Your task to perform on an android device: turn on location history Image 0: 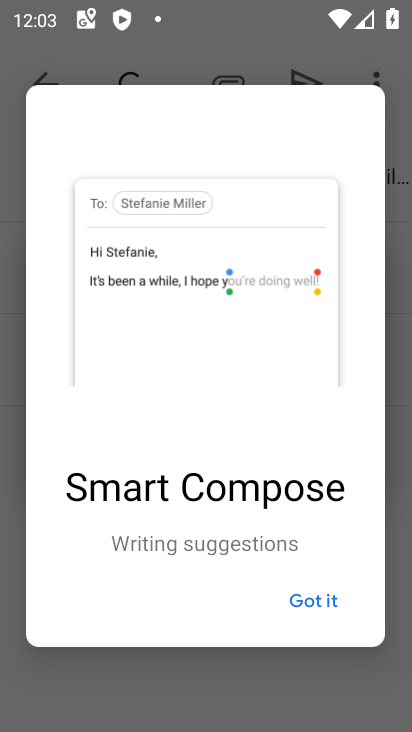
Step 0: click (318, 605)
Your task to perform on an android device: turn on location history Image 1: 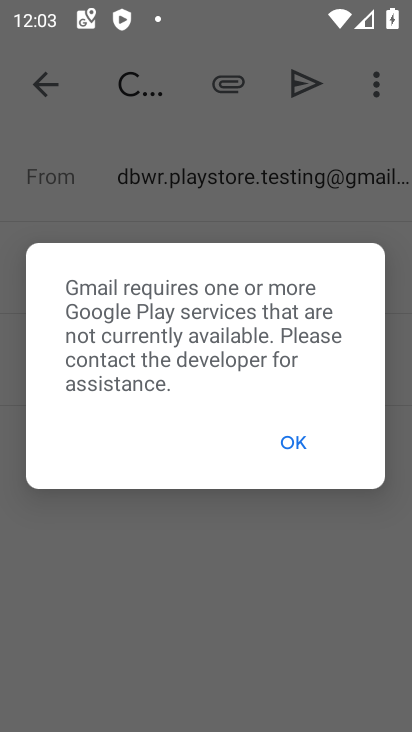
Step 1: press home button
Your task to perform on an android device: turn on location history Image 2: 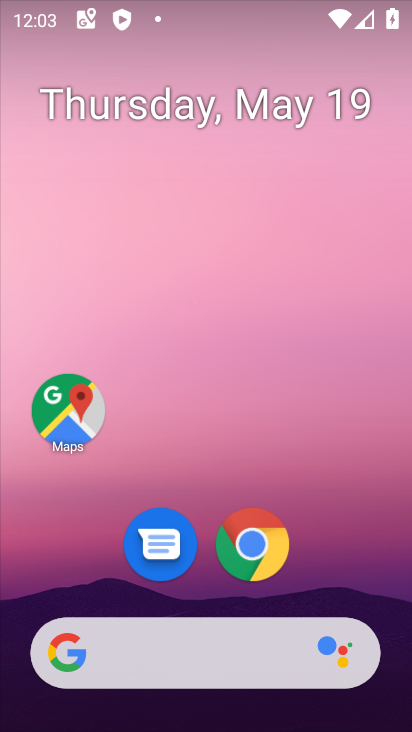
Step 2: drag from (276, 700) to (156, 195)
Your task to perform on an android device: turn on location history Image 3: 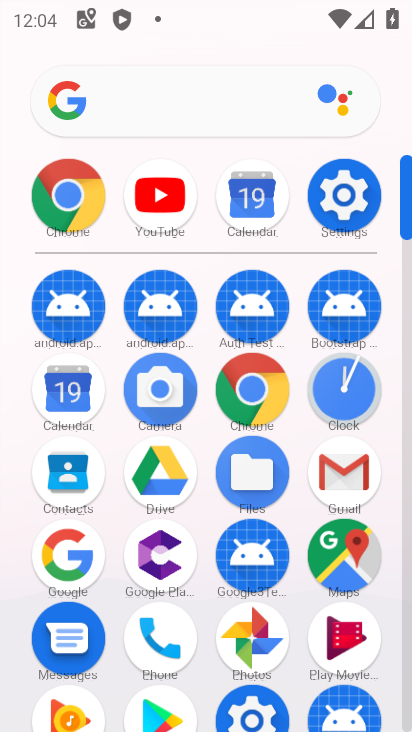
Step 3: click (352, 205)
Your task to perform on an android device: turn on location history Image 4: 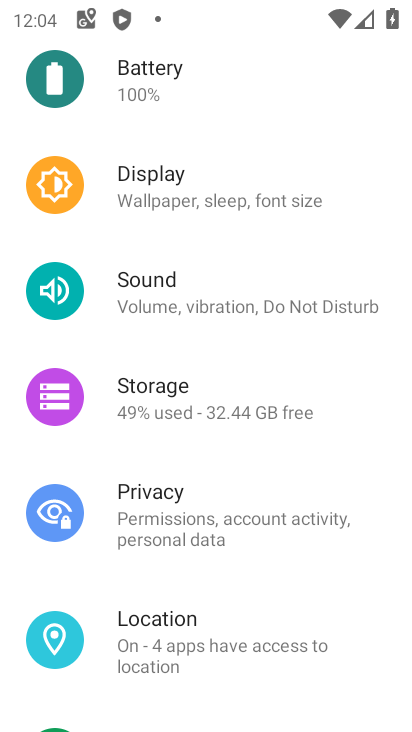
Step 4: click (190, 640)
Your task to perform on an android device: turn on location history Image 5: 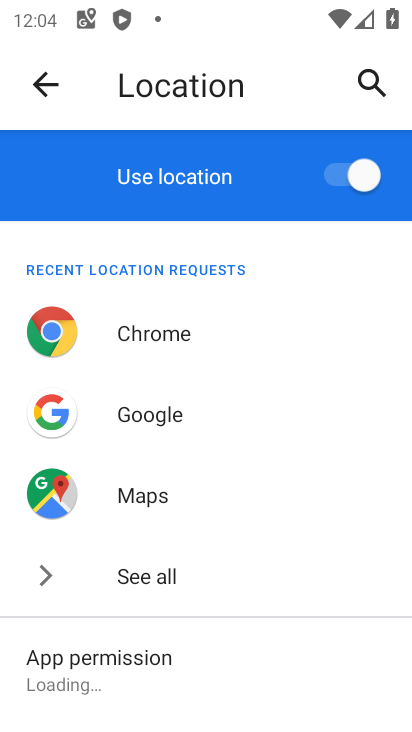
Step 5: drag from (311, 667) to (317, 189)
Your task to perform on an android device: turn on location history Image 6: 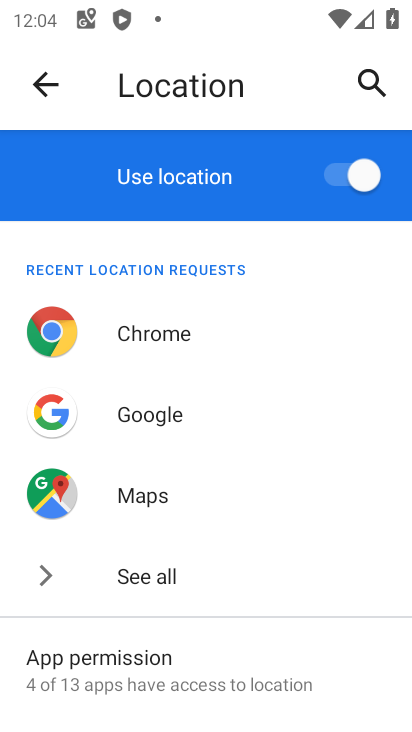
Step 6: drag from (319, 633) to (269, 233)
Your task to perform on an android device: turn on location history Image 7: 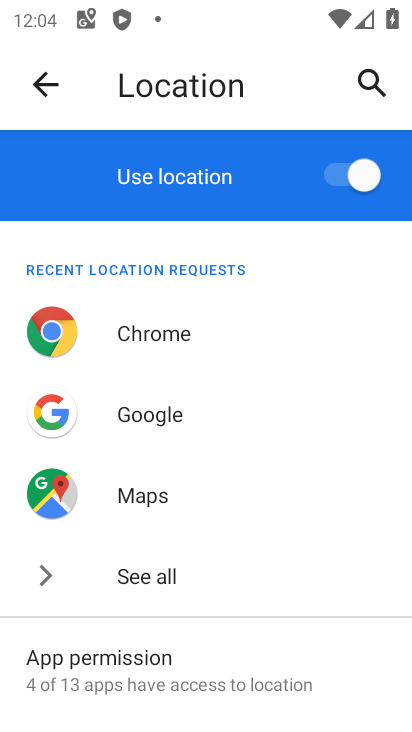
Step 7: click (181, 679)
Your task to perform on an android device: turn on location history Image 8: 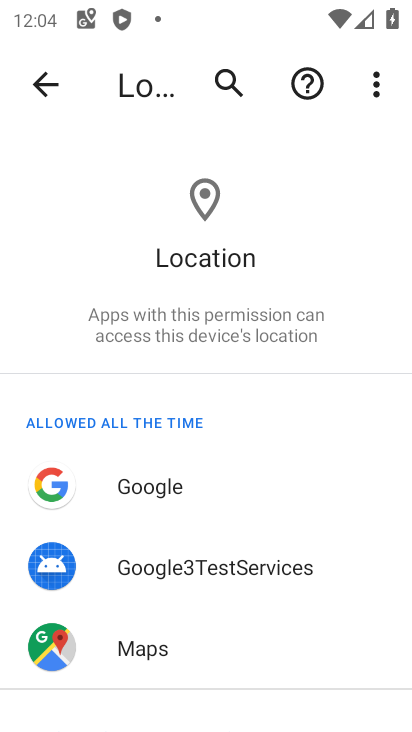
Step 8: drag from (365, 694) to (249, 320)
Your task to perform on an android device: turn on location history Image 9: 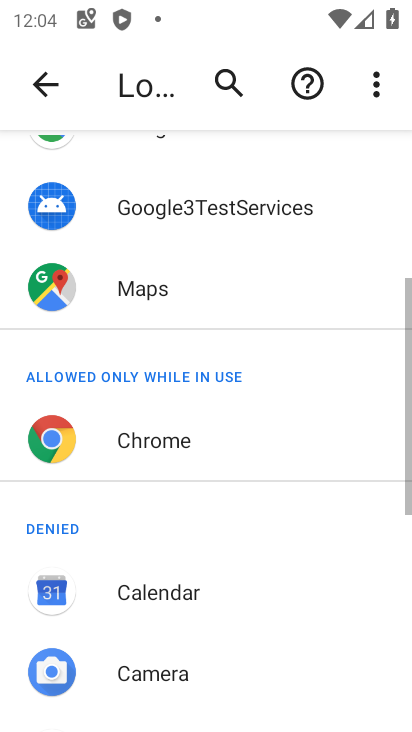
Step 9: drag from (317, 426) to (257, 194)
Your task to perform on an android device: turn on location history Image 10: 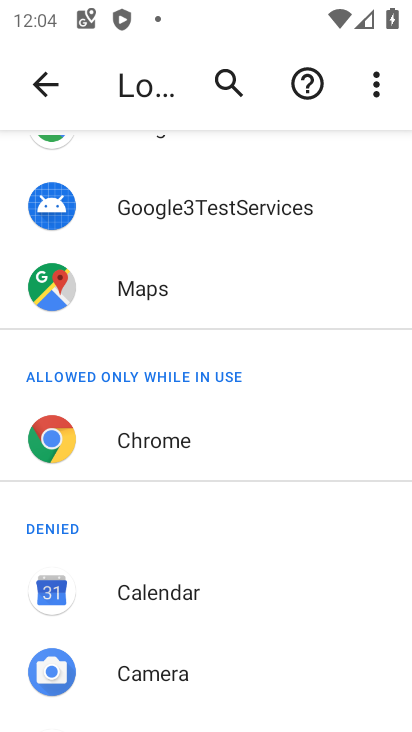
Step 10: drag from (300, 575) to (260, 291)
Your task to perform on an android device: turn on location history Image 11: 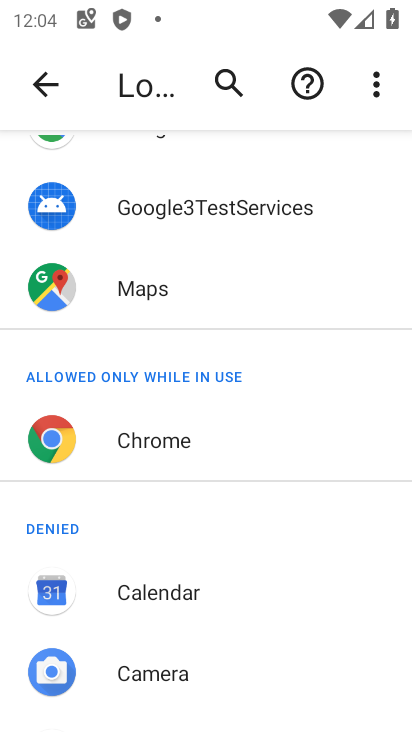
Step 11: drag from (398, 515) to (379, 170)
Your task to perform on an android device: turn on location history Image 12: 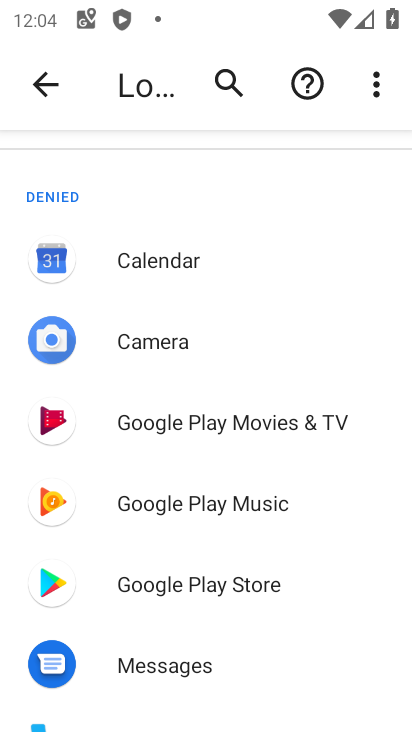
Step 12: click (377, 92)
Your task to perform on an android device: turn on location history Image 13: 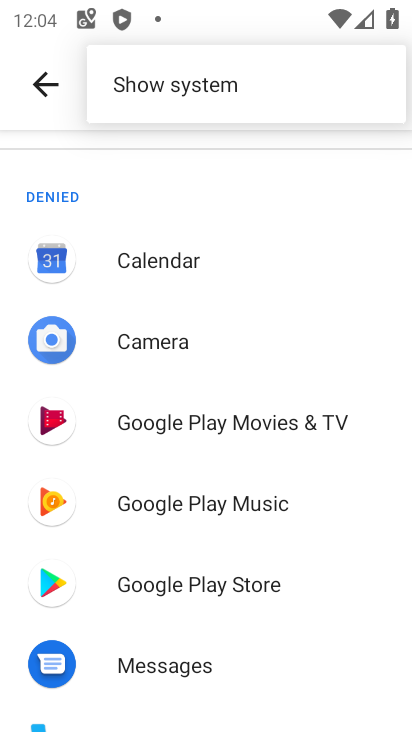
Step 13: click (313, 190)
Your task to perform on an android device: turn on location history Image 14: 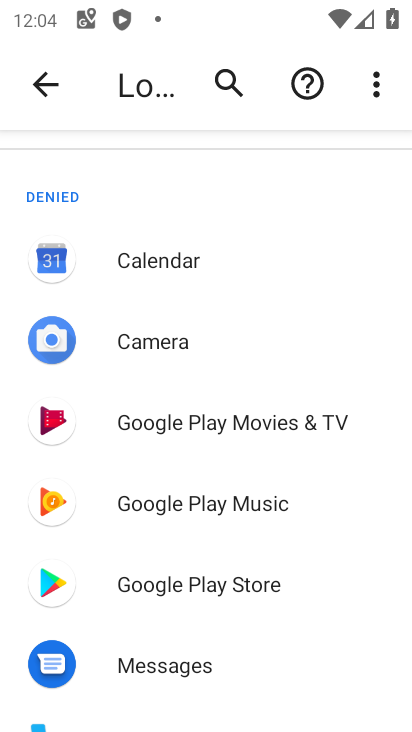
Step 14: drag from (323, 631) to (318, 122)
Your task to perform on an android device: turn on location history Image 15: 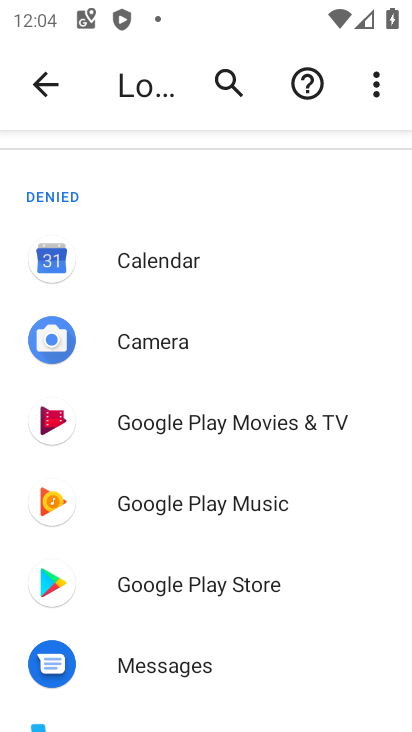
Step 15: drag from (304, 155) to (315, 464)
Your task to perform on an android device: turn on location history Image 16: 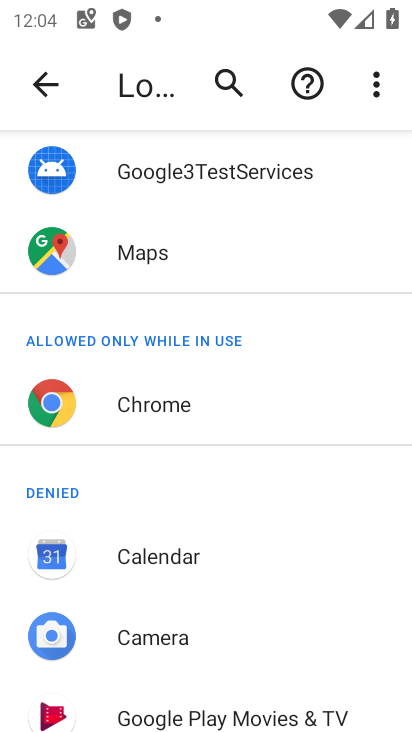
Step 16: click (49, 84)
Your task to perform on an android device: turn on location history Image 17: 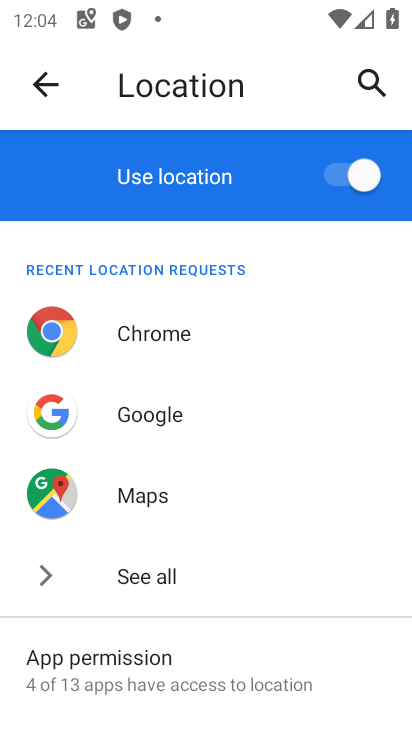
Step 17: drag from (367, 627) to (293, 135)
Your task to perform on an android device: turn on location history Image 18: 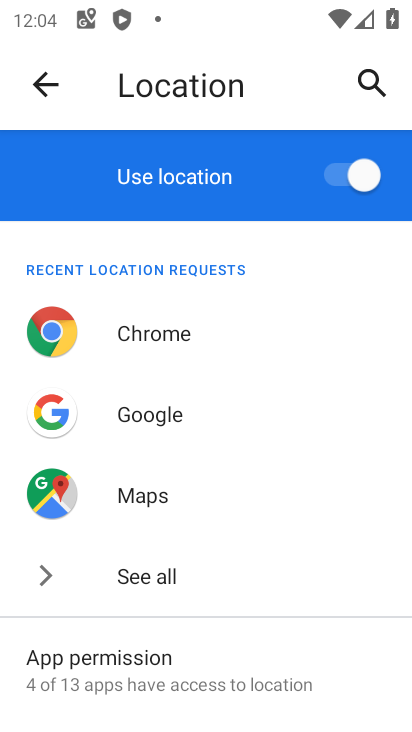
Step 18: drag from (219, 714) to (194, 202)
Your task to perform on an android device: turn on location history Image 19: 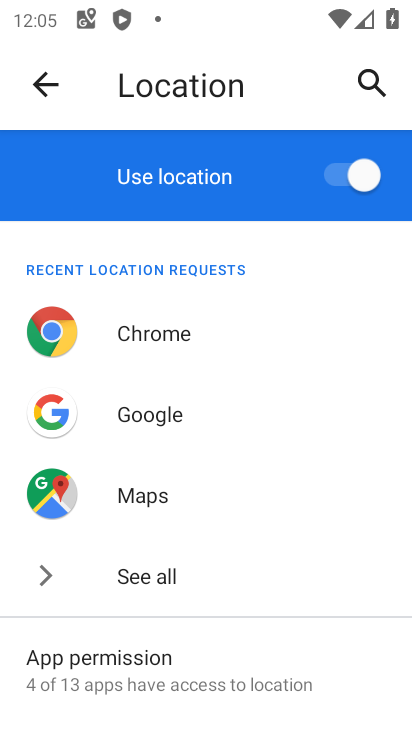
Step 19: drag from (288, 658) to (261, 201)
Your task to perform on an android device: turn on location history Image 20: 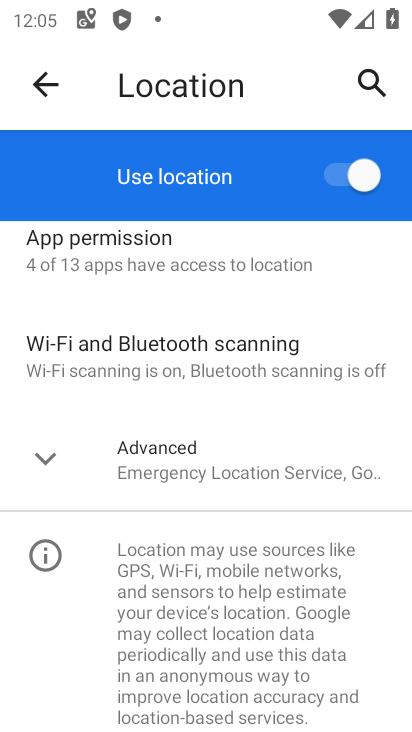
Step 20: drag from (330, 530) to (293, 226)
Your task to perform on an android device: turn on location history Image 21: 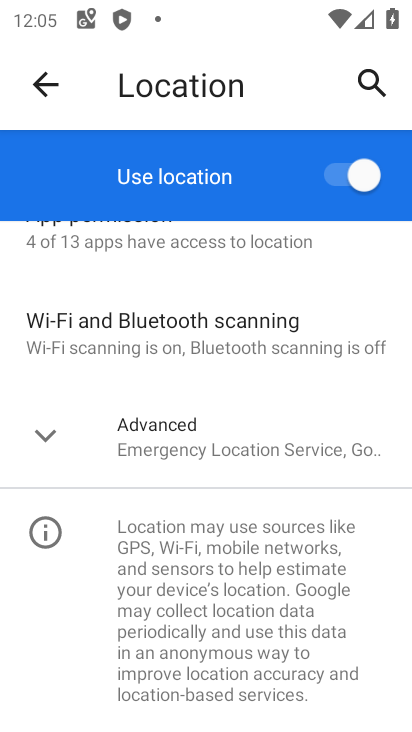
Step 21: click (245, 451)
Your task to perform on an android device: turn on location history Image 22: 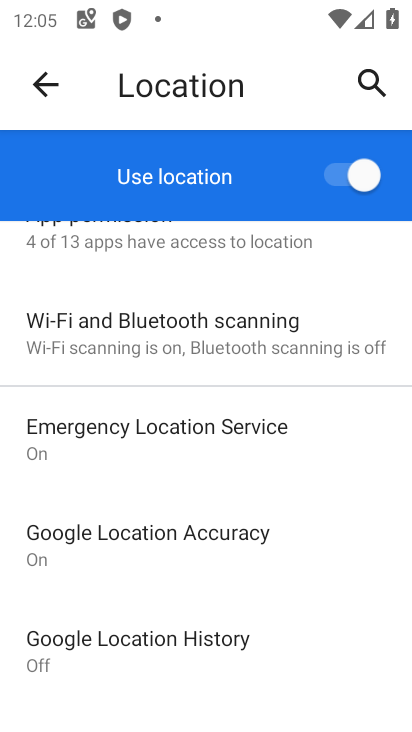
Step 22: click (133, 640)
Your task to perform on an android device: turn on location history Image 23: 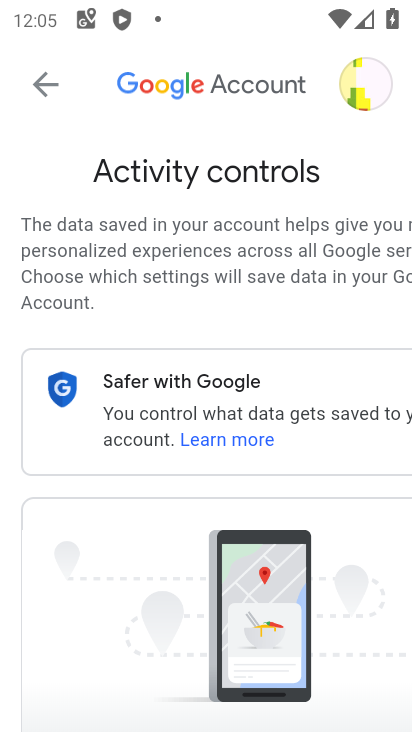
Step 23: task complete